Your task to perform on an android device: Open ESPN.com Image 0: 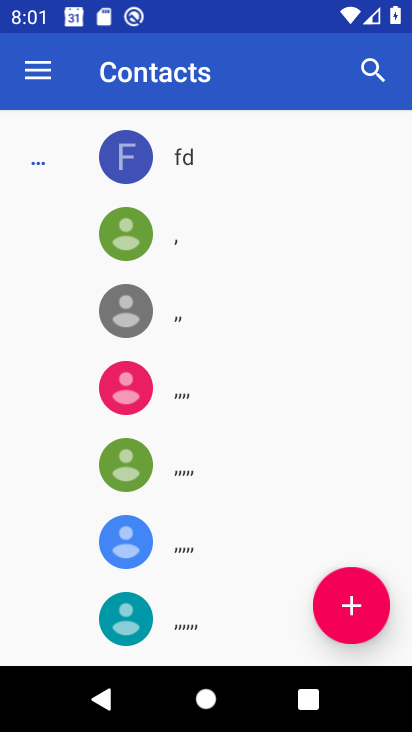
Step 0: press home button
Your task to perform on an android device: Open ESPN.com Image 1: 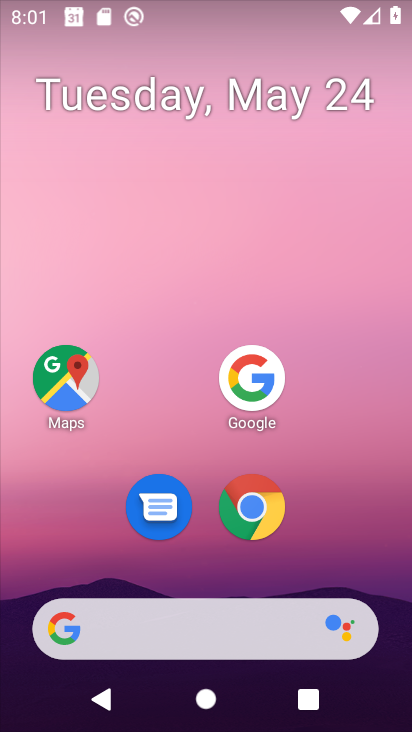
Step 1: click (251, 520)
Your task to perform on an android device: Open ESPN.com Image 2: 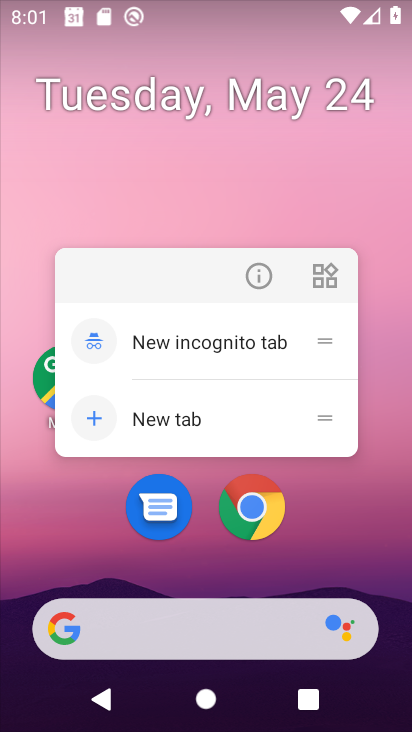
Step 2: click (257, 512)
Your task to perform on an android device: Open ESPN.com Image 3: 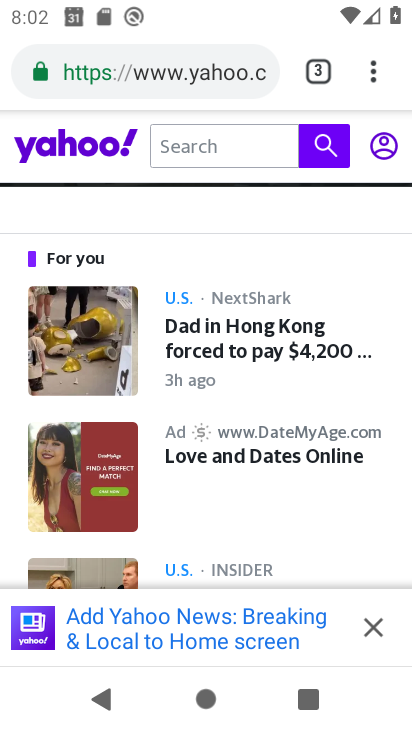
Step 3: drag from (371, 80) to (249, 146)
Your task to perform on an android device: Open ESPN.com Image 4: 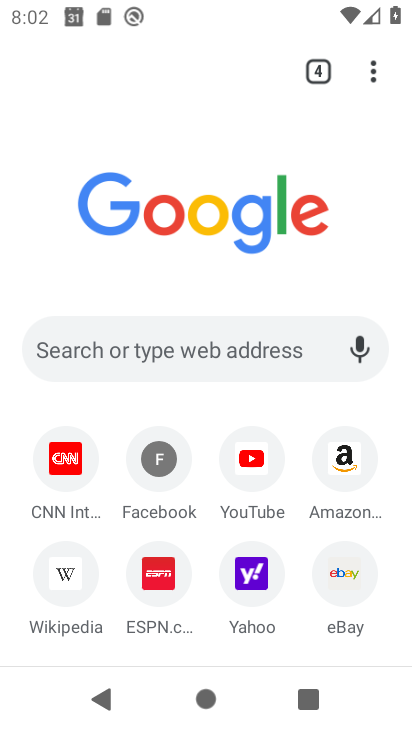
Step 4: click (155, 577)
Your task to perform on an android device: Open ESPN.com Image 5: 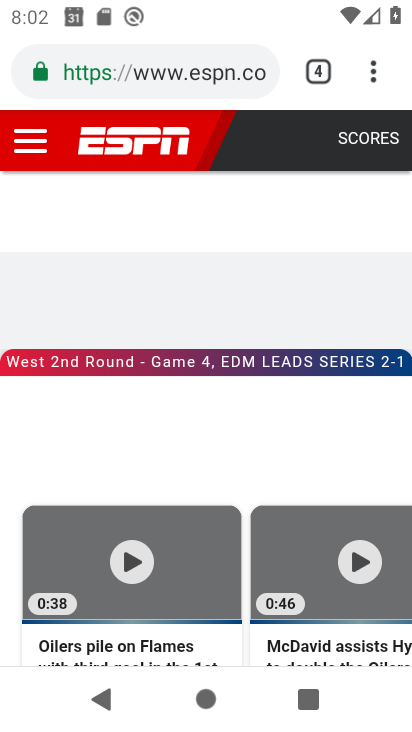
Step 5: task complete